Your task to perform on an android device: Go to wifi settings Image 0: 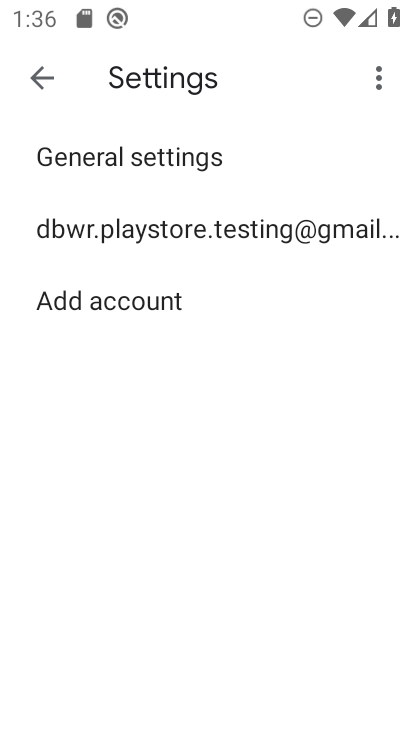
Step 0: press home button
Your task to perform on an android device: Go to wifi settings Image 1: 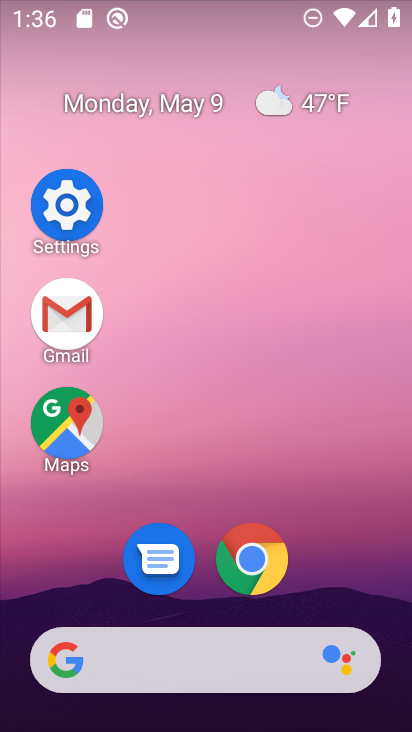
Step 1: click (78, 221)
Your task to perform on an android device: Go to wifi settings Image 2: 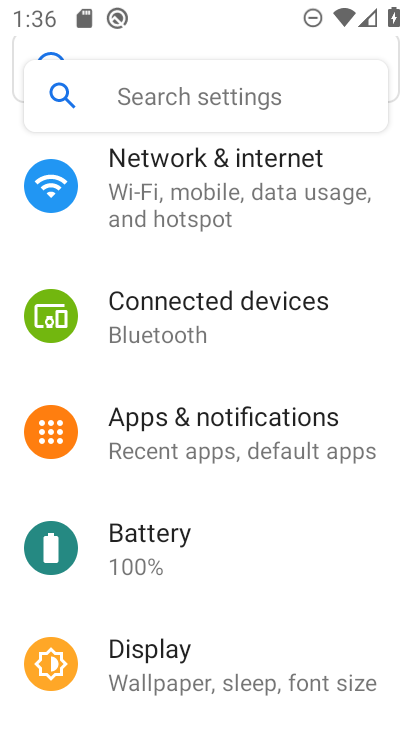
Step 2: click (233, 190)
Your task to perform on an android device: Go to wifi settings Image 3: 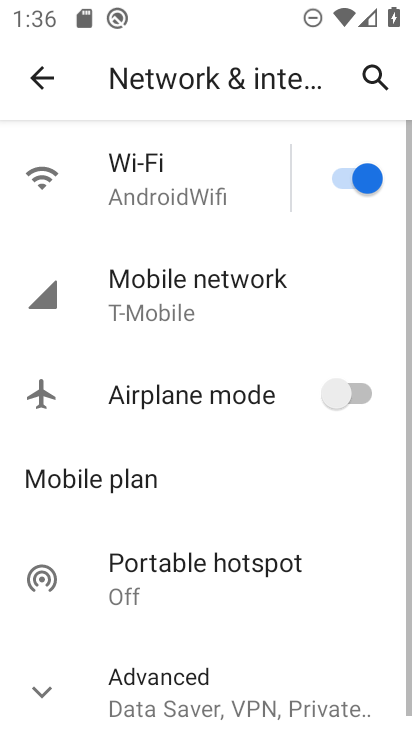
Step 3: click (214, 177)
Your task to perform on an android device: Go to wifi settings Image 4: 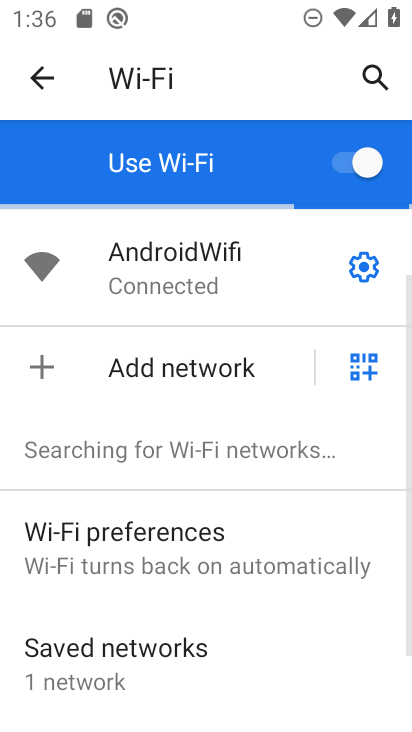
Step 4: click (369, 262)
Your task to perform on an android device: Go to wifi settings Image 5: 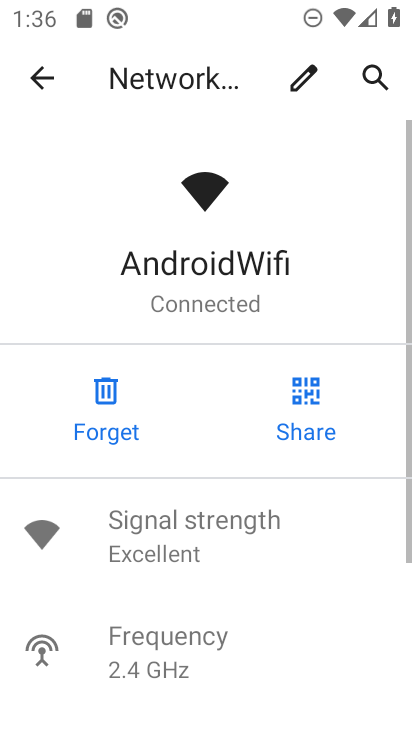
Step 5: task complete